Your task to perform on an android device: Show me productivity apps on the Play Store Image 0: 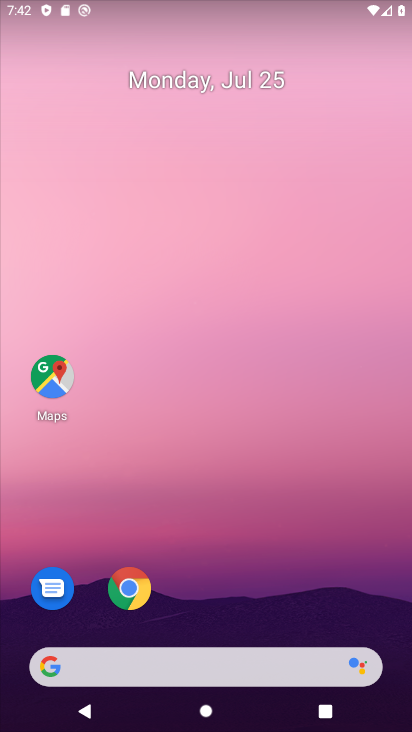
Step 0: drag from (212, 652) to (225, 190)
Your task to perform on an android device: Show me productivity apps on the Play Store Image 1: 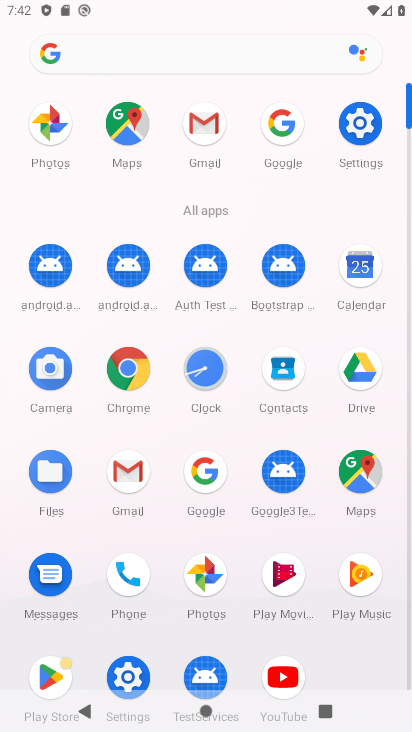
Step 1: click (45, 677)
Your task to perform on an android device: Show me productivity apps on the Play Store Image 2: 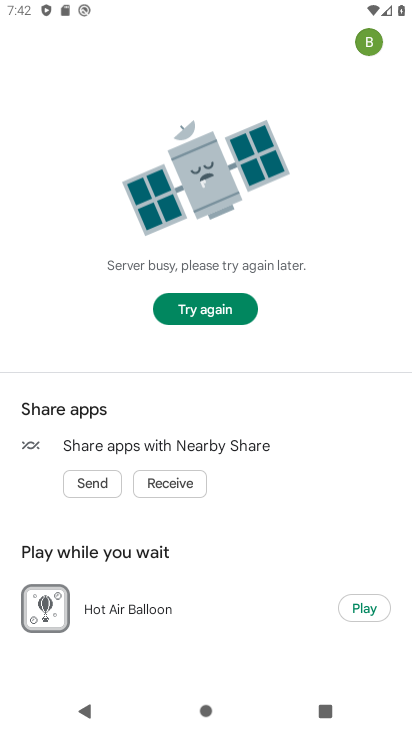
Step 2: click (190, 310)
Your task to perform on an android device: Show me productivity apps on the Play Store Image 3: 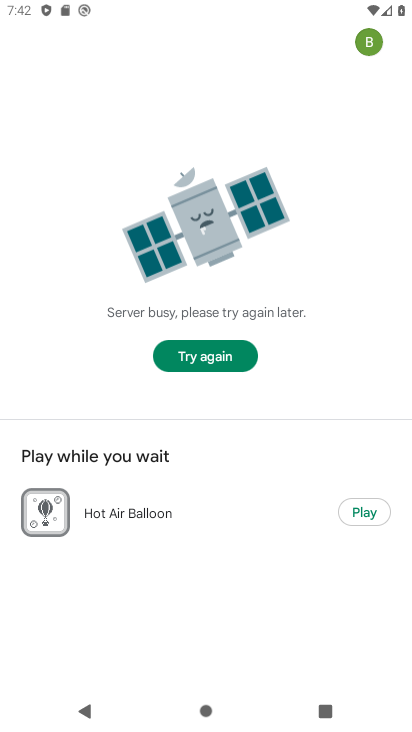
Step 3: task complete